Your task to perform on an android device: make emails show in primary in the gmail app Image 0: 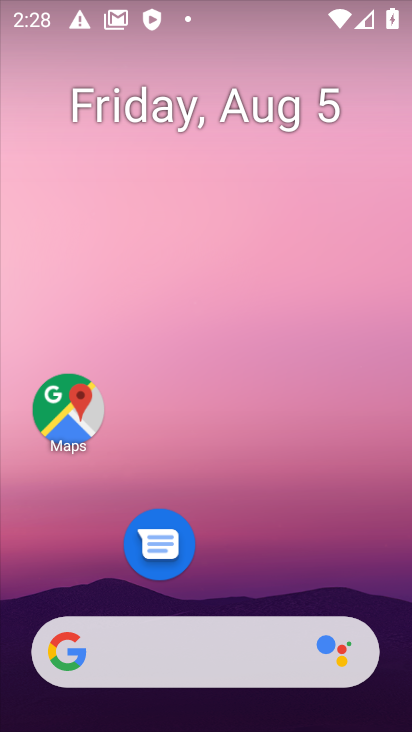
Step 0: drag from (288, 569) to (288, 28)
Your task to perform on an android device: make emails show in primary in the gmail app Image 1: 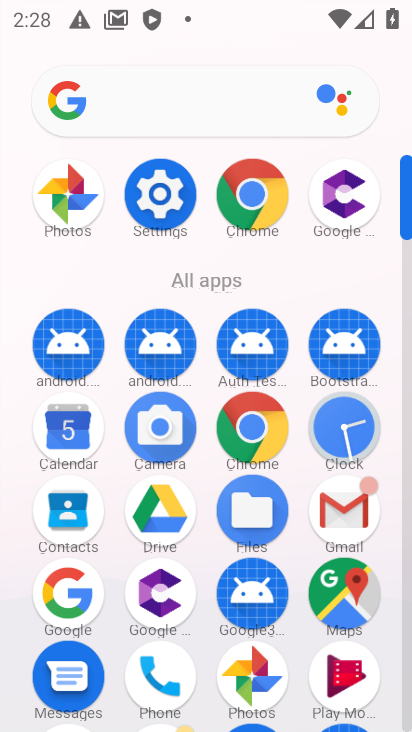
Step 1: click (327, 500)
Your task to perform on an android device: make emails show in primary in the gmail app Image 2: 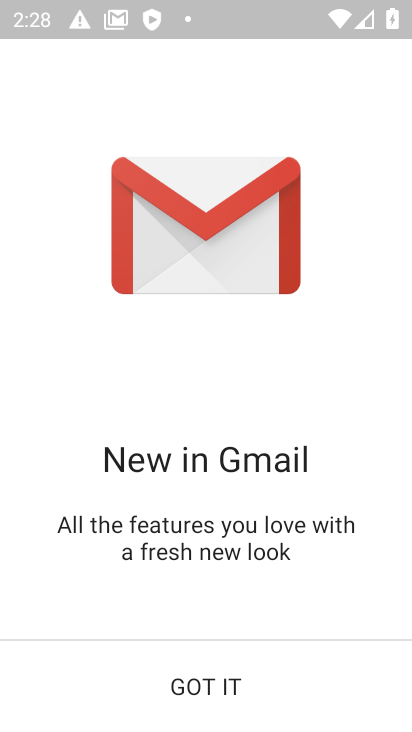
Step 2: click (228, 673)
Your task to perform on an android device: make emails show in primary in the gmail app Image 3: 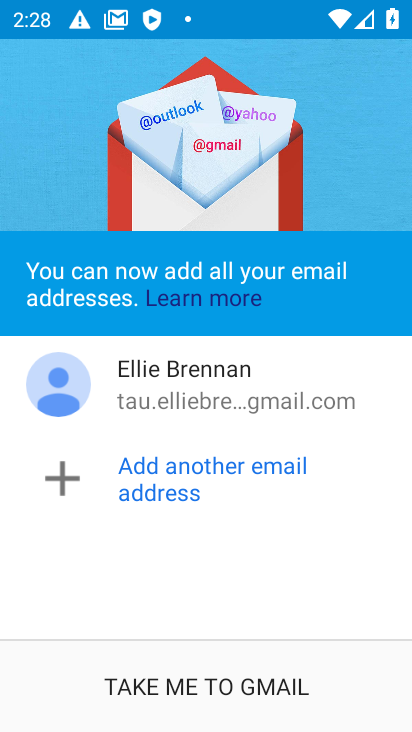
Step 3: click (191, 713)
Your task to perform on an android device: make emails show in primary in the gmail app Image 4: 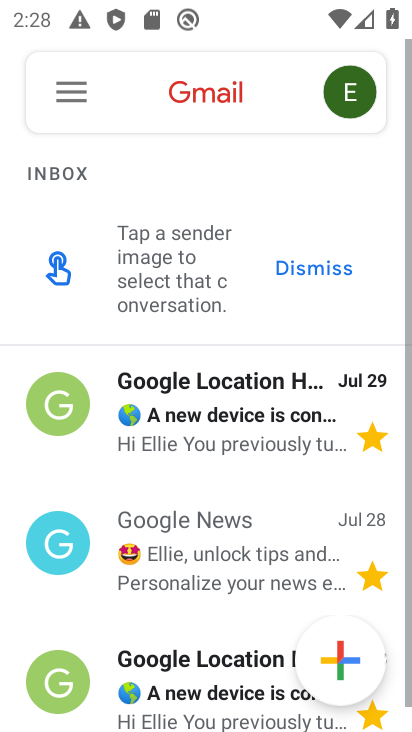
Step 4: click (50, 82)
Your task to perform on an android device: make emails show in primary in the gmail app Image 5: 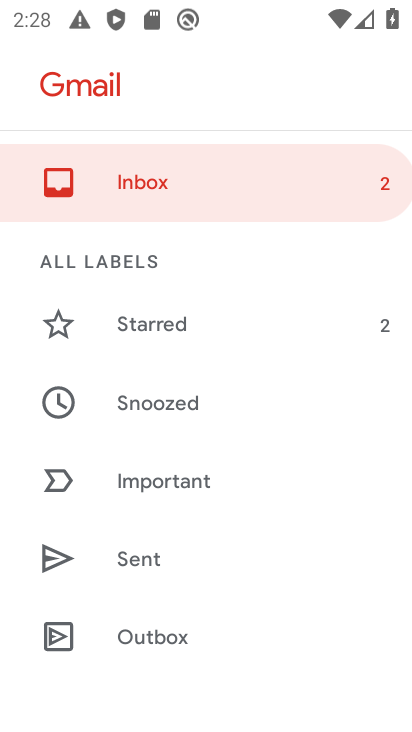
Step 5: drag from (199, 557) to (270, 117)
Your task to perform on an android device: make emails show in primary in the gmail app Image 6: 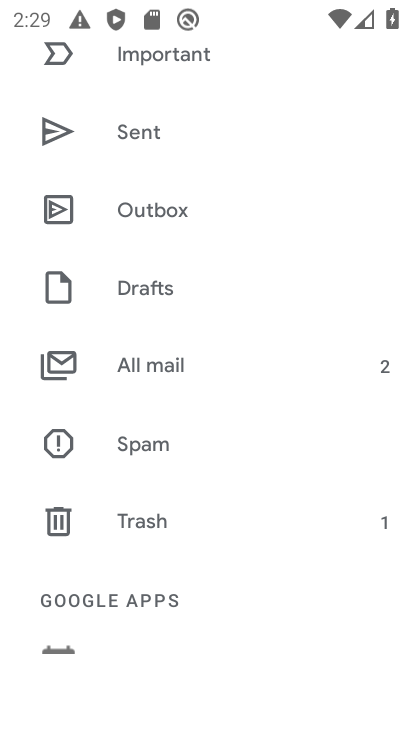
Step 6: drag from (137, 628) to (142, 100)
Your task to perform on an android device: make emails show in primary in the gmail app Image 7: 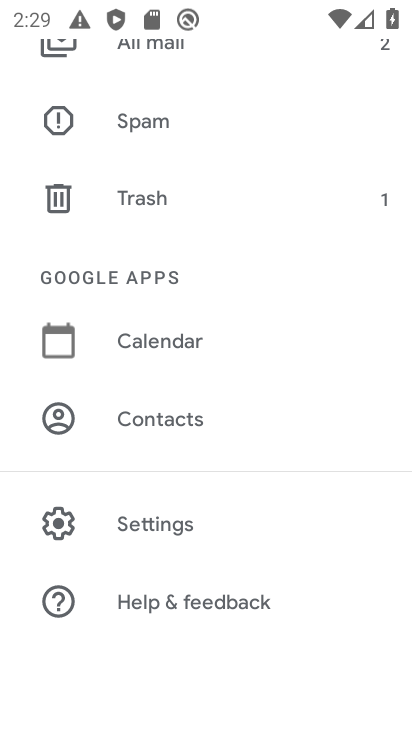
Step 7: click (145, 522)
Your task to perform on an android device: make emails show in primary in the gmail app Image 8: 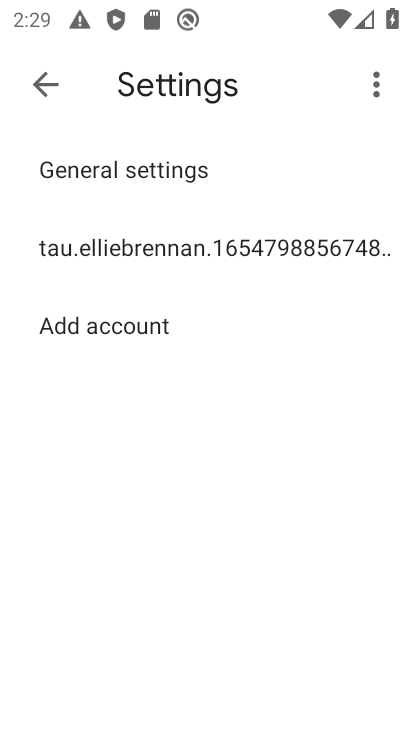
Step 8: click (102, 260)
Your task to perform on an android device: make emails show in primary in the gmail app Image 9: 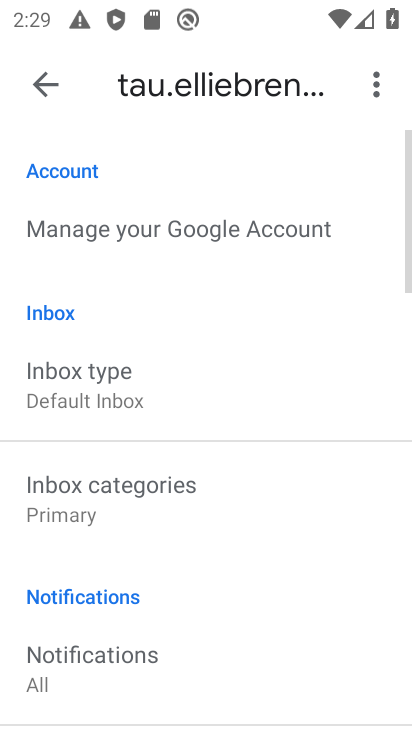
Step 9: click (107, 383)
Your task to perform on an android device: make emails show in primary in the gmail app Image 10: 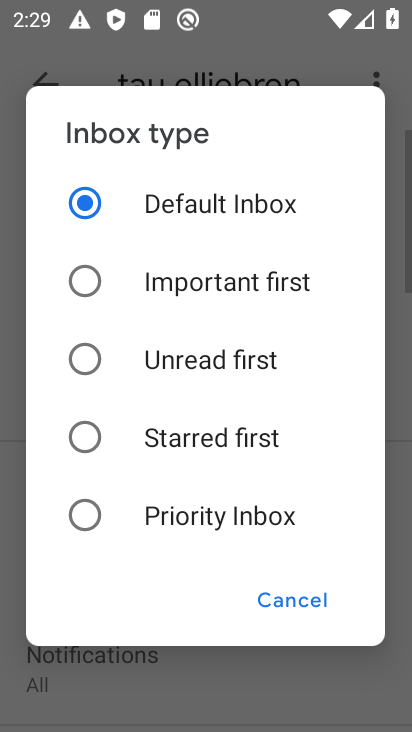
Step 10: click (97, 185)
Your task to perform on an android device: make emails show in primary in the gmail app Image 11: 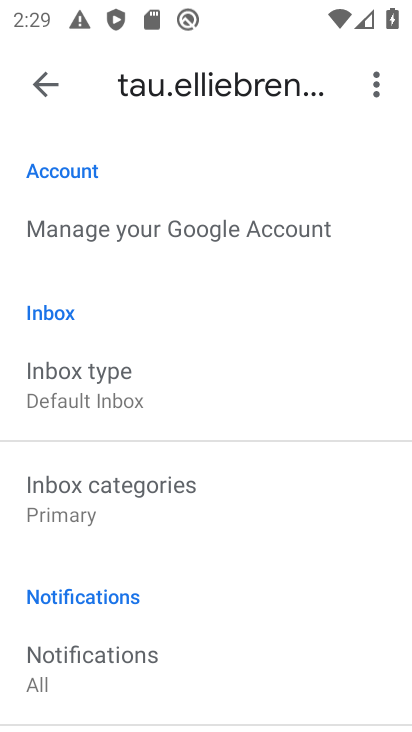
Step 11: click (103, 504)
Your task to perform on an android device: make emails show in primary in the gmail app Image 12: 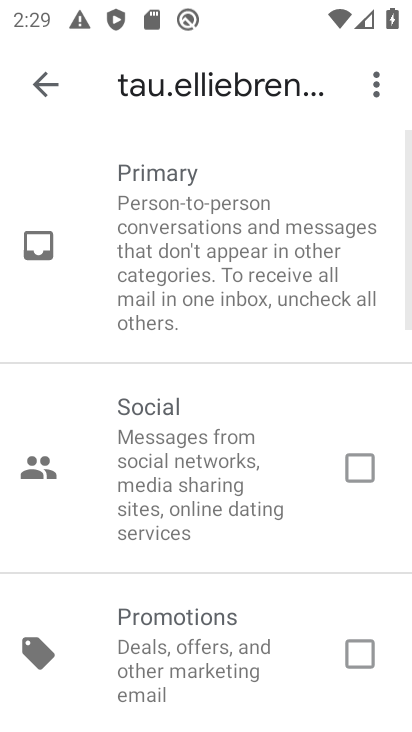
Step 12: click (345, 472)
Your task to perform on an android device: make emails show in primary in the gmail app Image 13: 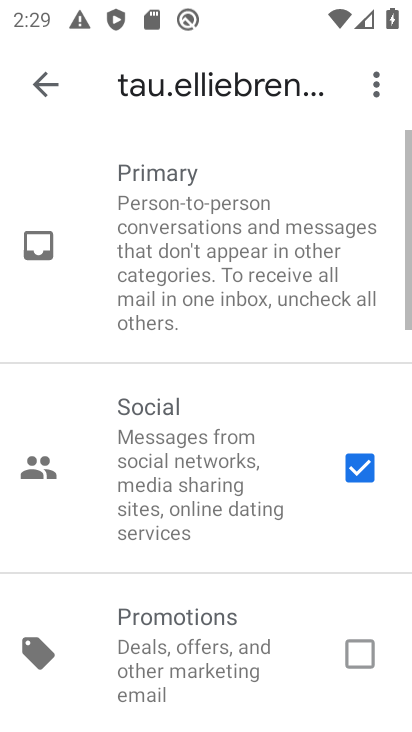
Step 13: click (345, 657)
Your task to perform on an android device: make emails show in primary in the gmail app Image 14: 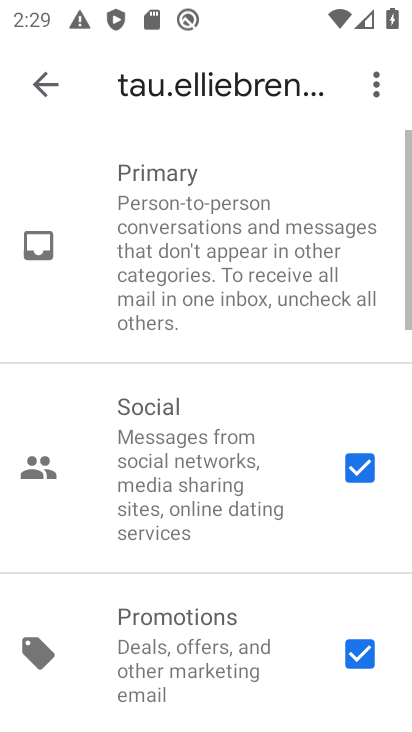
Step 14: drag from (307, 659) to (288, 171)
Your task to perform on an android device: make emails show in primary in the gmail app Image 15: 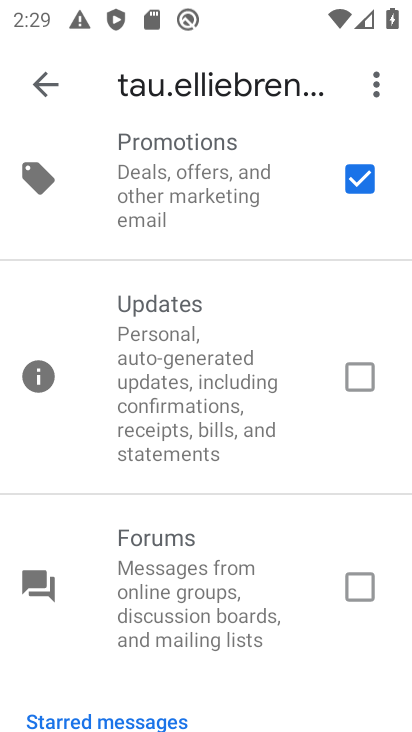
Step 15: click (45, 82)
Your task to perform on an android device: make emails show in primary in the gmail app Image 16: 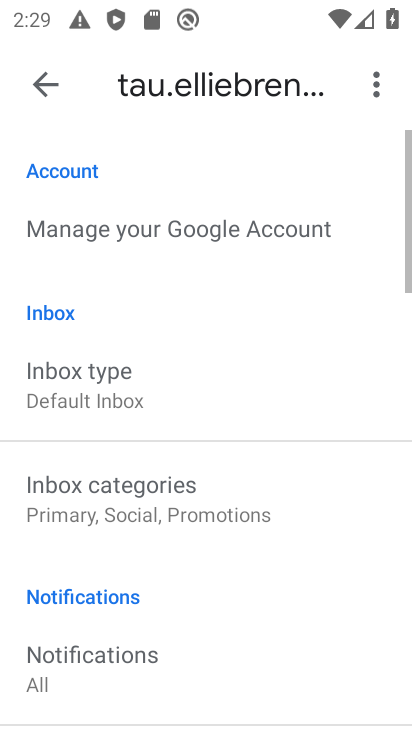
Step 16: click (46, 82)
Your task to perform on an android device: make emails show in primary in the gmail app Image 17: 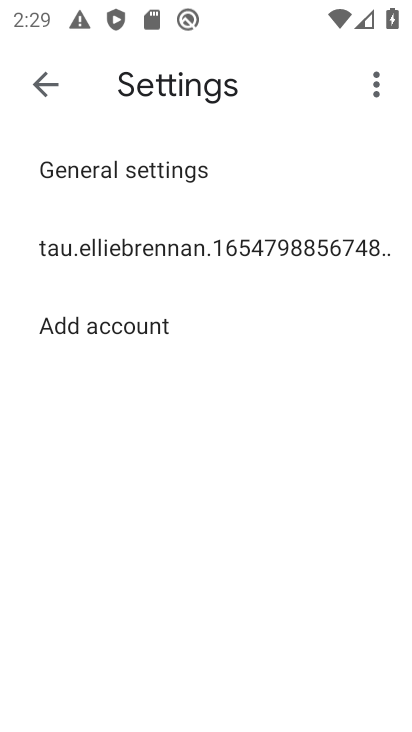
Step 17: click (65, 88)
Your task to perform on an android device: make emails show in primary in the gmail app Image 18: 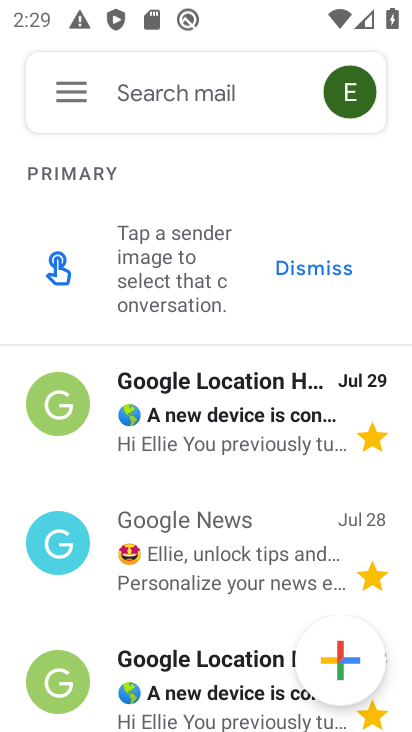
Step 18: task complete